Your task to perform on an android device: toggle priority inbox in the gmail app Image 0: 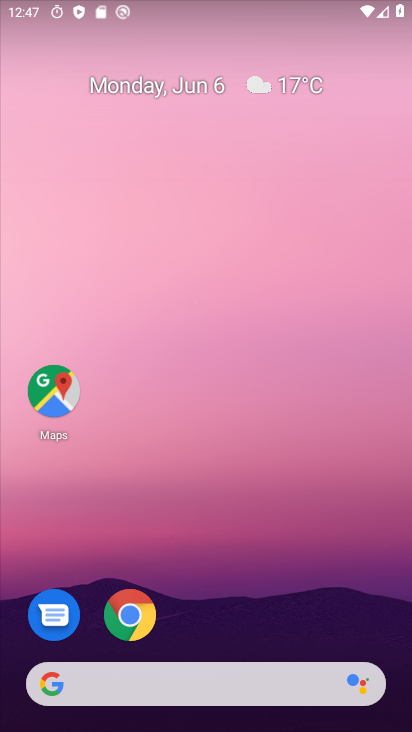
Step 0: click (196, 112)
Your task to perform on an android device: toggle priority inbox in the gmail app Image 1: 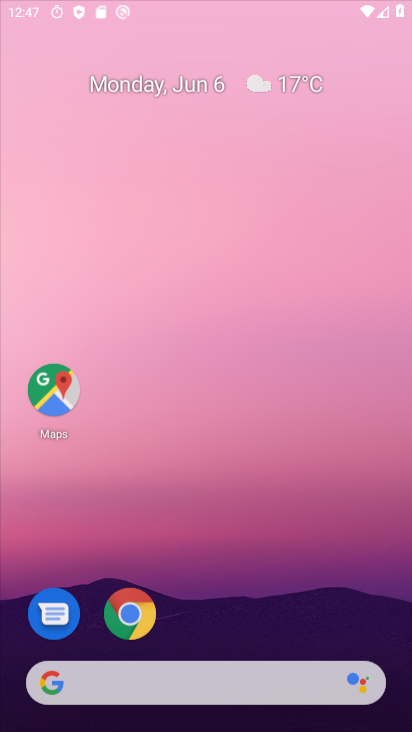
Step 1: drag from (200, 624) to (200, 144)
Your task to perform on an android device: toggle priority inbox in the gmail app Image 2: 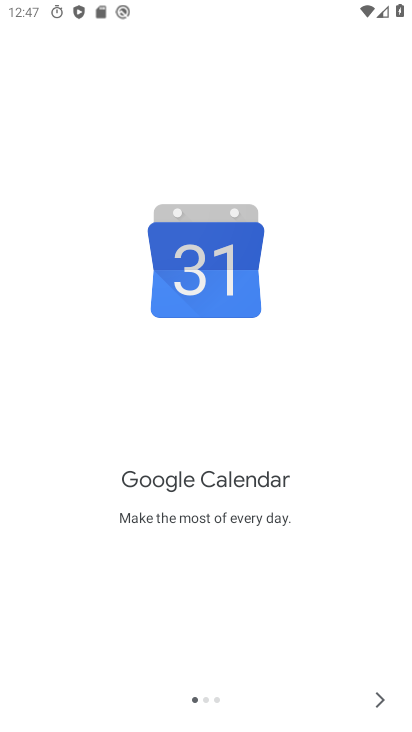
Step 2: press home button
Your task to perform on an android device: toggle priority inbox in the gmail app Image 3: 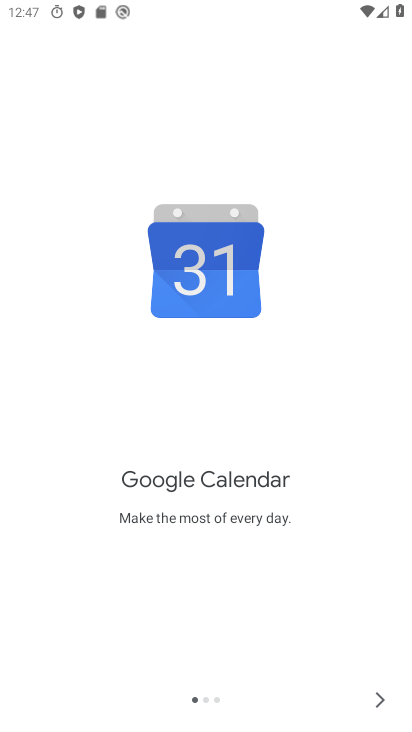
Step 3: press home button
Your task to perform on an android device: toggle priority inbox in the gmail app Image 4: 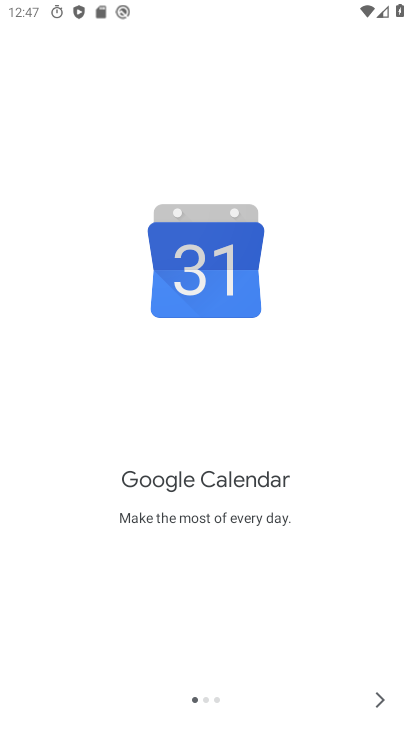
Step 4: click (257, 121)
Your task to perform on an android device: toggle priority inbox in the gmail app Image 5: 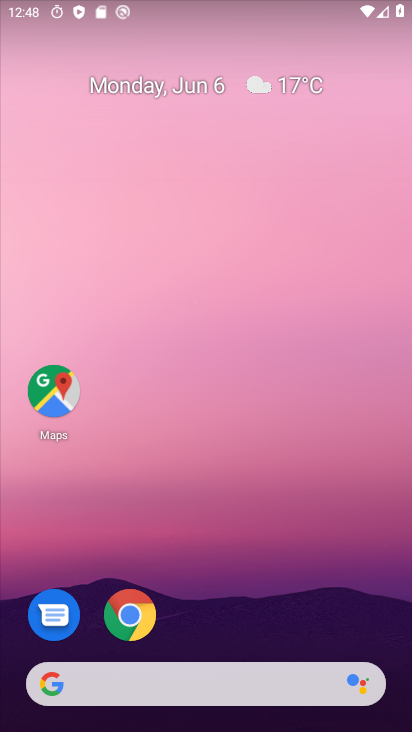
Step 5: drag from (187, 612) to (200, 121)
Your task to perform on an android device: toggle priority inbox in the gmail app Image 6: 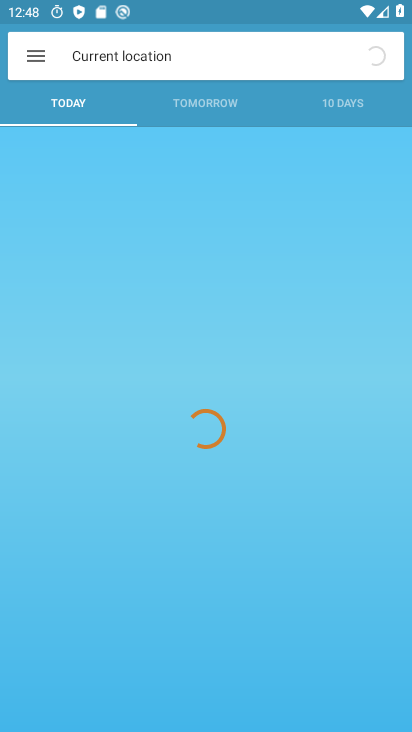
Step 6: drag from (205, 522) to (172, 47)
Your task to perform on an android device: toggle priority inbox in the gmail app Image 7: 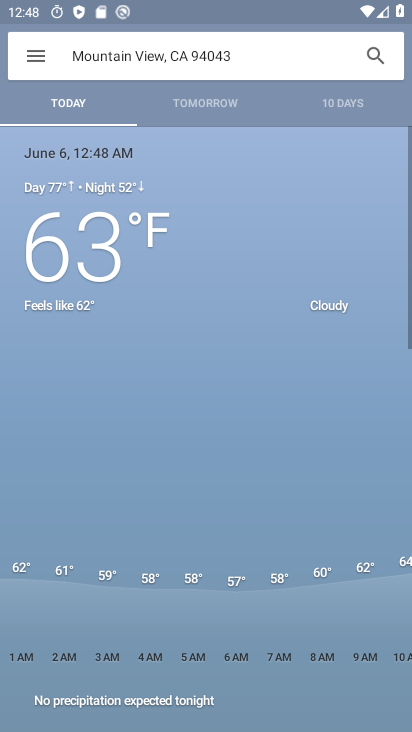
Step 7: press back button
Your task to perform on an android device: toggle priority inbox in the gmail app Image 8: 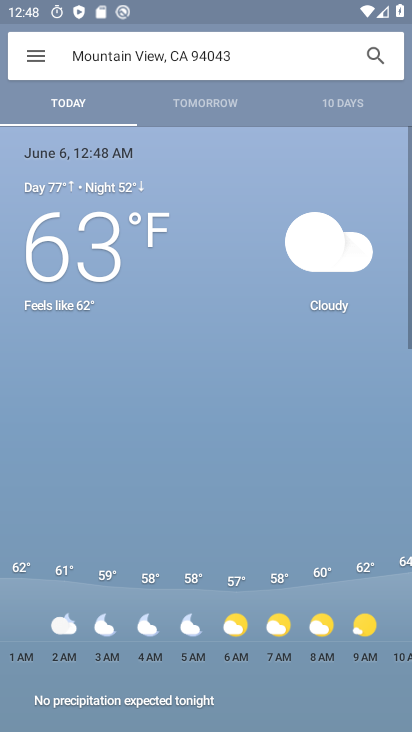
Step 8: press home button
Your task to perform on an android device: toggle priority inbox in the gmail app Image 9: 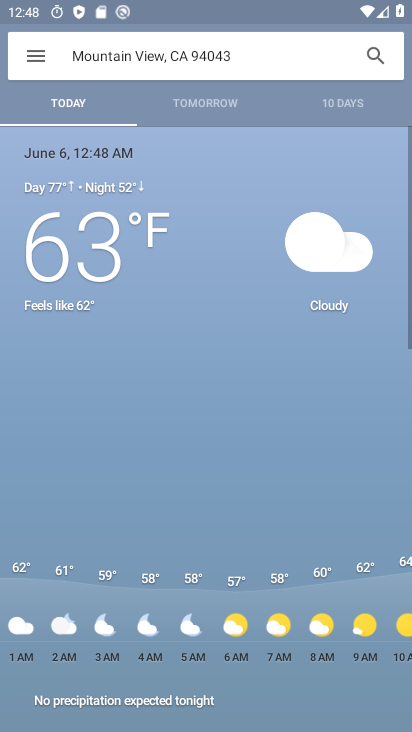
Step 9: click (221, 292)
Your task to perform on an android device: toggle priority inbox in the gmail app Image 10: 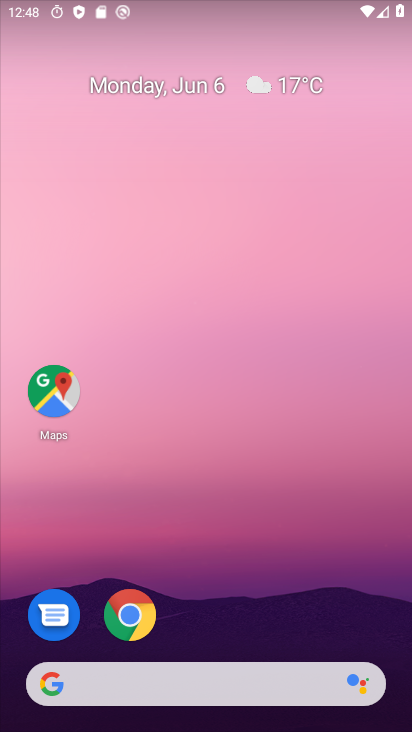
Step 10: drag from (193, 604) to (227, 84)
Your task to perform on an android device: toggle priority inbox in the gmail app Image 11: 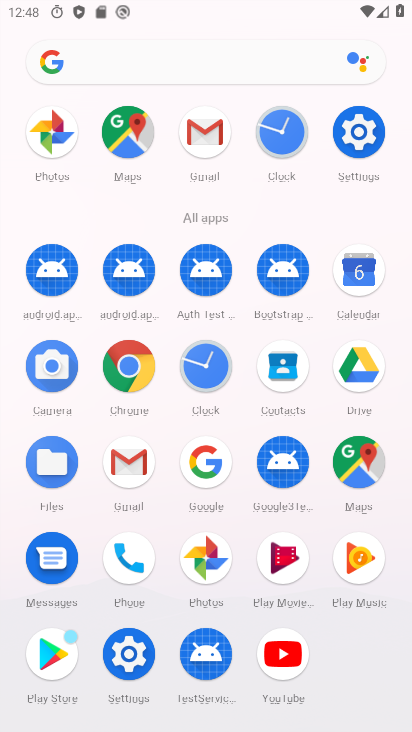
Step 11: click (134, 451)
Your task to perform on an android device: toggle priority inbox in the gmail app Image 12: 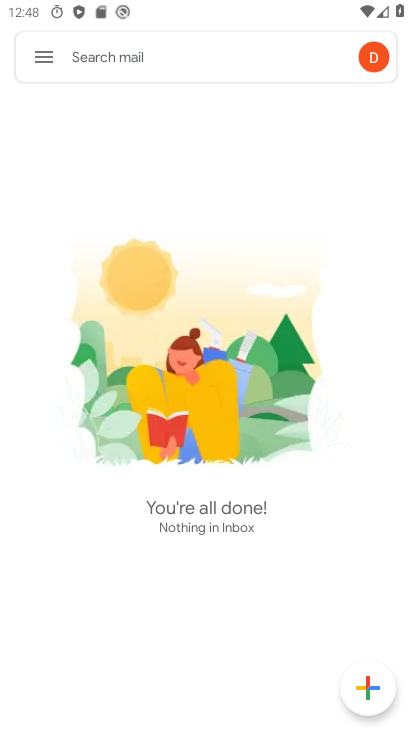
Step 12: drag from (208, 587) to (179, 254)
Your task to perform on an android device: toggle priority inbox in the gmail app Image 13: 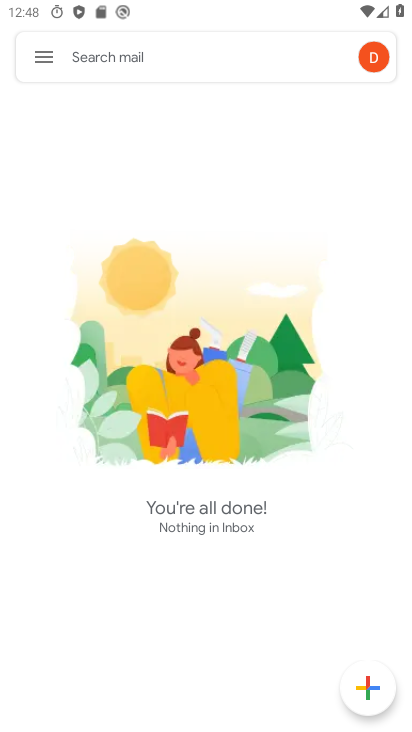
Step 13: click (49, 49)
Your task to perform on an android device: toggle priority inbox in the gmail app Image 14: 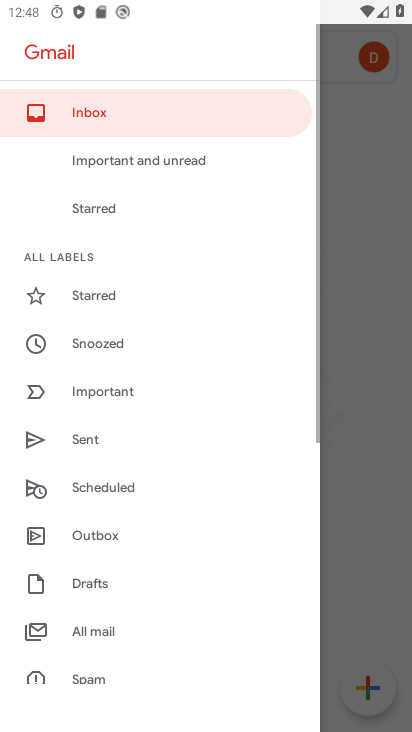
Step 14: drag from (173, 384) to (207, 532)
Your task to perform on an android device: toggle priority inbox in the gmail app Image 15: 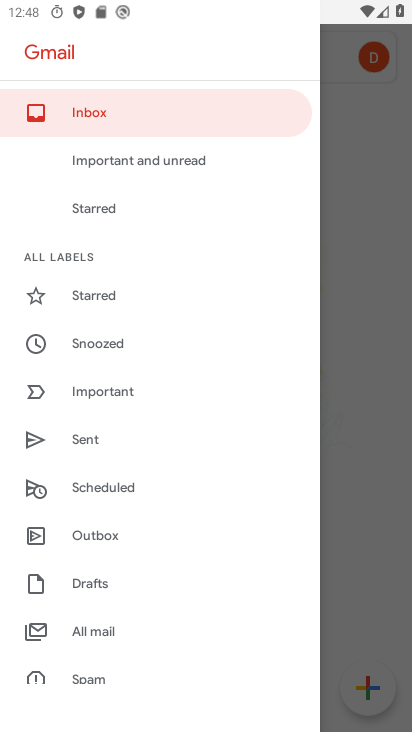
Step 15: drag from (172, 498) to (173, 237)
Your task to perform on an android device: toggle priority inbox in the gmail app Image 16: 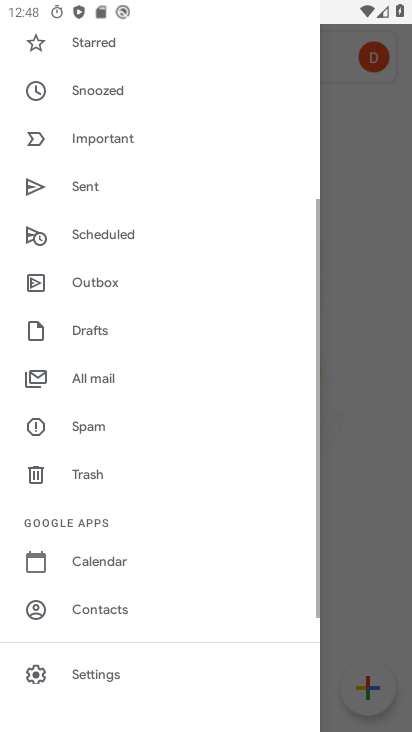
Step 16: drag from (177, 265) to (253, 683)
Your task to perform on an android device: toggle priority inbox in the gmail app Image 17: 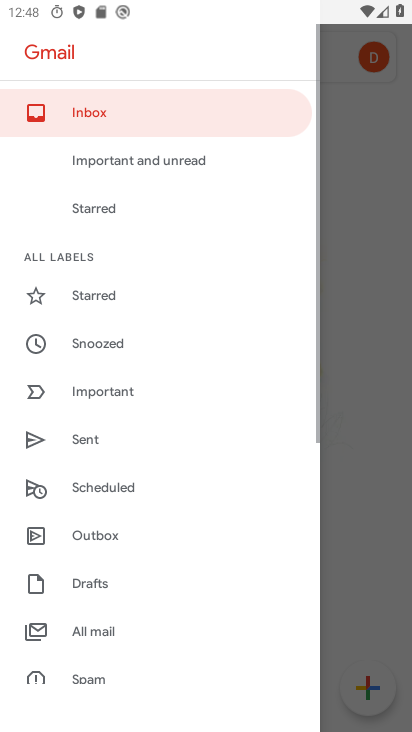
Step 17: drag from (172, 619) to (226, 156)
Your task to perform on an android device: toggle priority inbox in the gmail app Image 18: 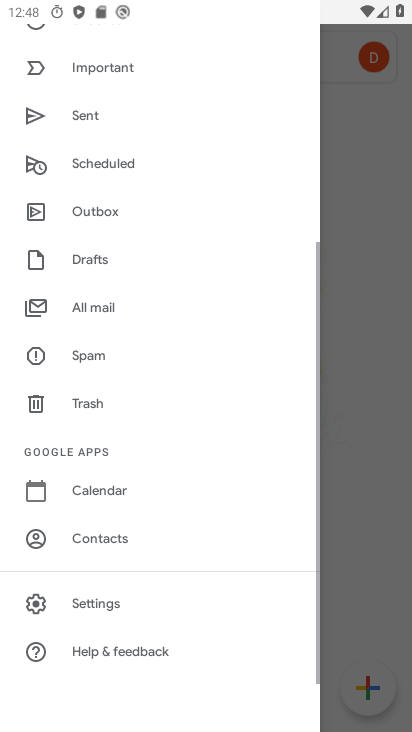
Step 18: drag from (226, 152) to (298, 682)
Your task to perform on an android device: toggle priority inbox in the gmail app Image 19: 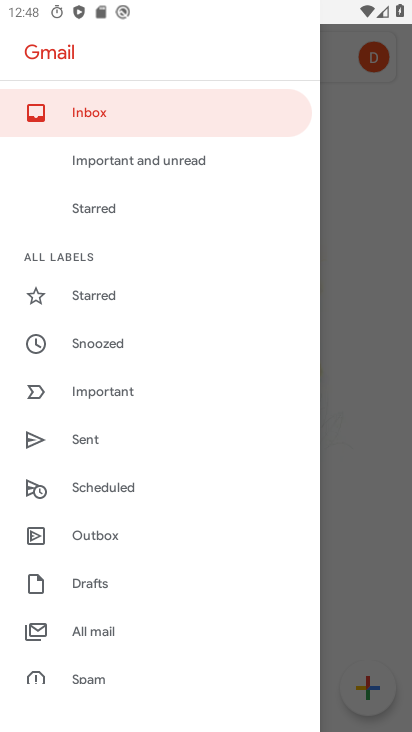
Step 19: click (103, 106)
Your task to perform on an android device: toggle priority inbox in the gmail app Image 20: 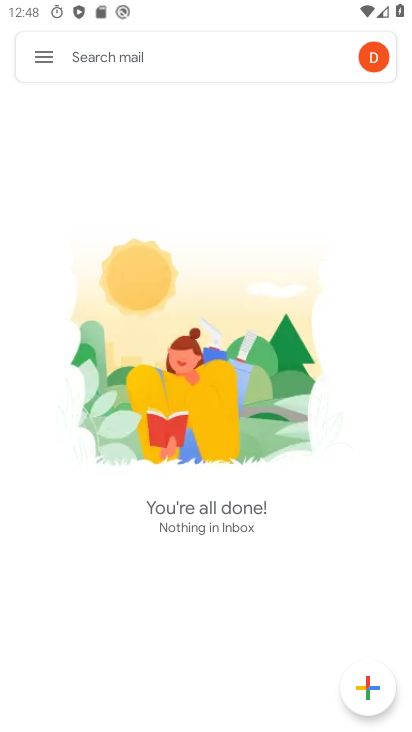
Step 20: drag from (171, 566) to (196, 258)
Your task to perform on an android device: toggle priority inbox in the gmail app Image 21: 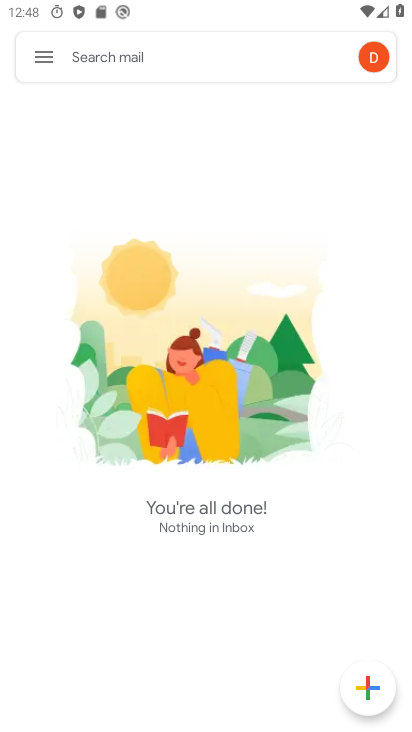
Step 21: click (36, 61)
Your task to perform on an android device: toggle priority inbox in the gmail app Image 22: 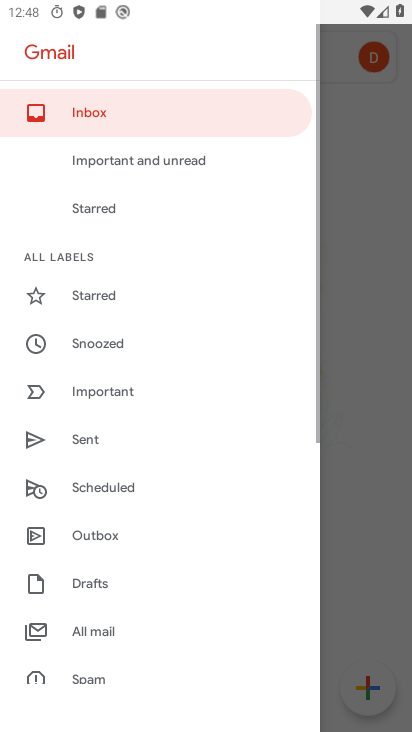
Step 22: drag from (155, 548) to (243, 46)
Your task to perform on an android device: toggle priority inbox in the gmail app Image 23: 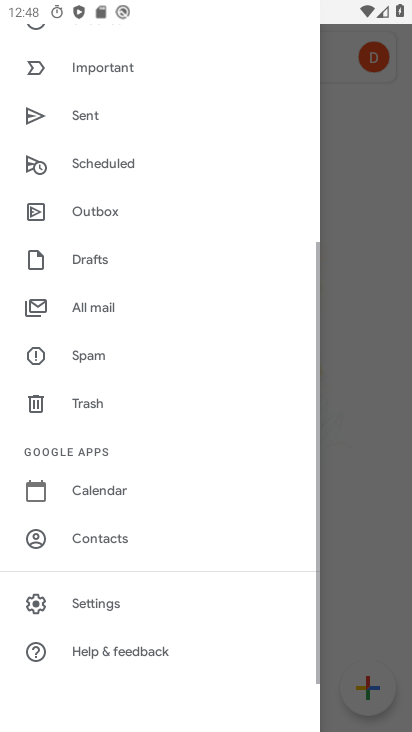
Step 23: click (108, 592)
Your task to perform on an android device: toggle priority inbox in the gmail app Image 24: 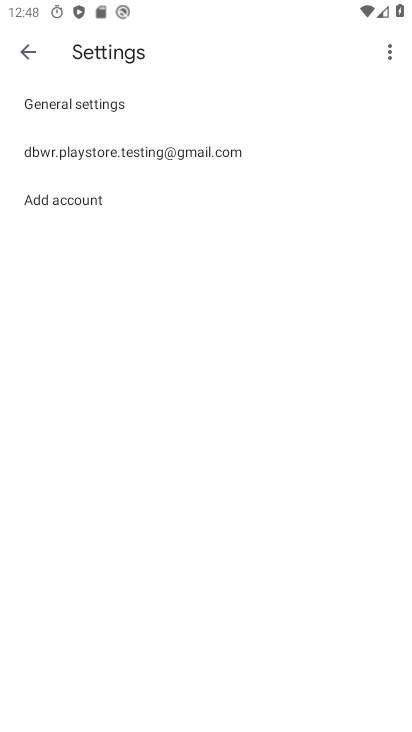
Step 24: drag from (128, 563) to (214, 111)
Your task to perform on an android device: toggle priority inbox in the gmail app Image 25: 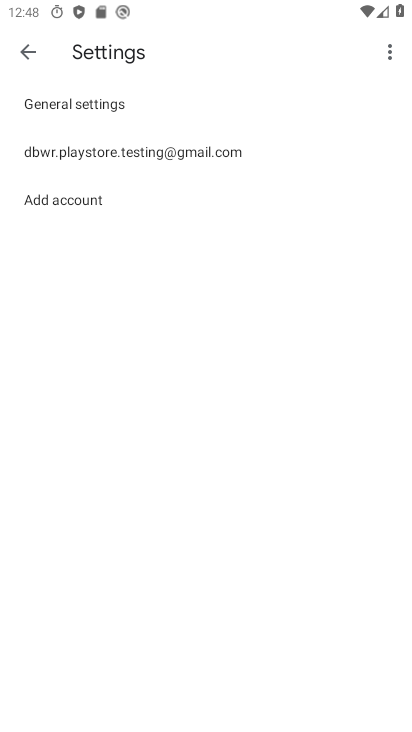
Step 25: click (204, 149)
Your task to perform on an android device: toggle priority inbox in the gmail app Image 26: 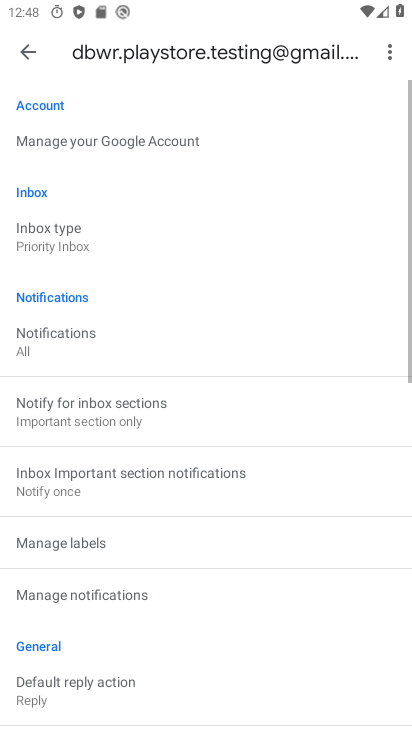
Step 26: click (75, 209)
Your task to perform on an android device: toggle priority inbox in the gmail app Image 27: 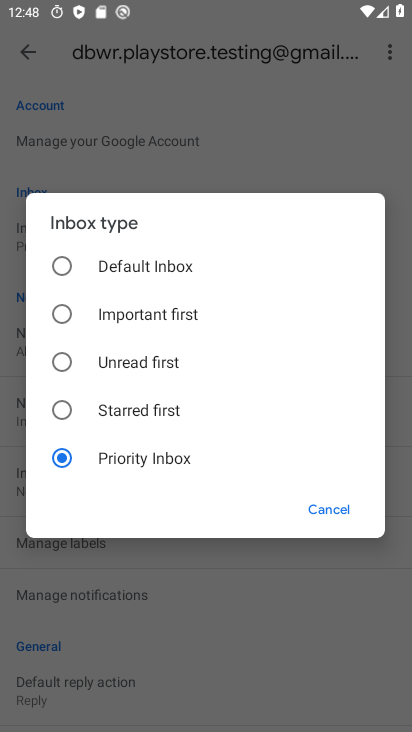
Step 27: click (129, 264)
Your task to perform on an android device: toggle priority inbox in the gmail app Image 28: 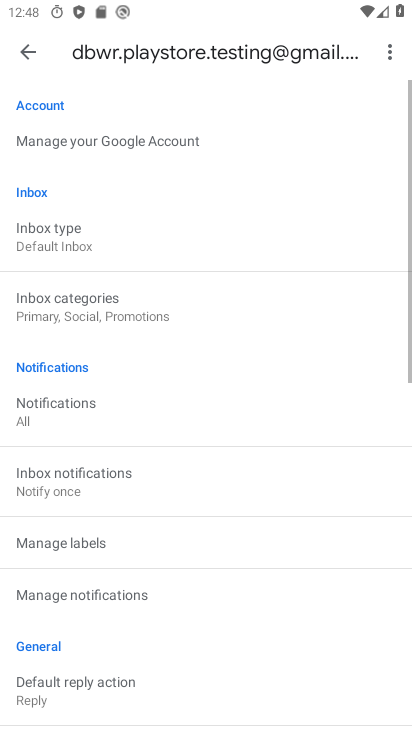
Step 28: task complete